Your task to perform on an android device: Open Google Chrome and click the shortcut for Amazon.com Image 0: 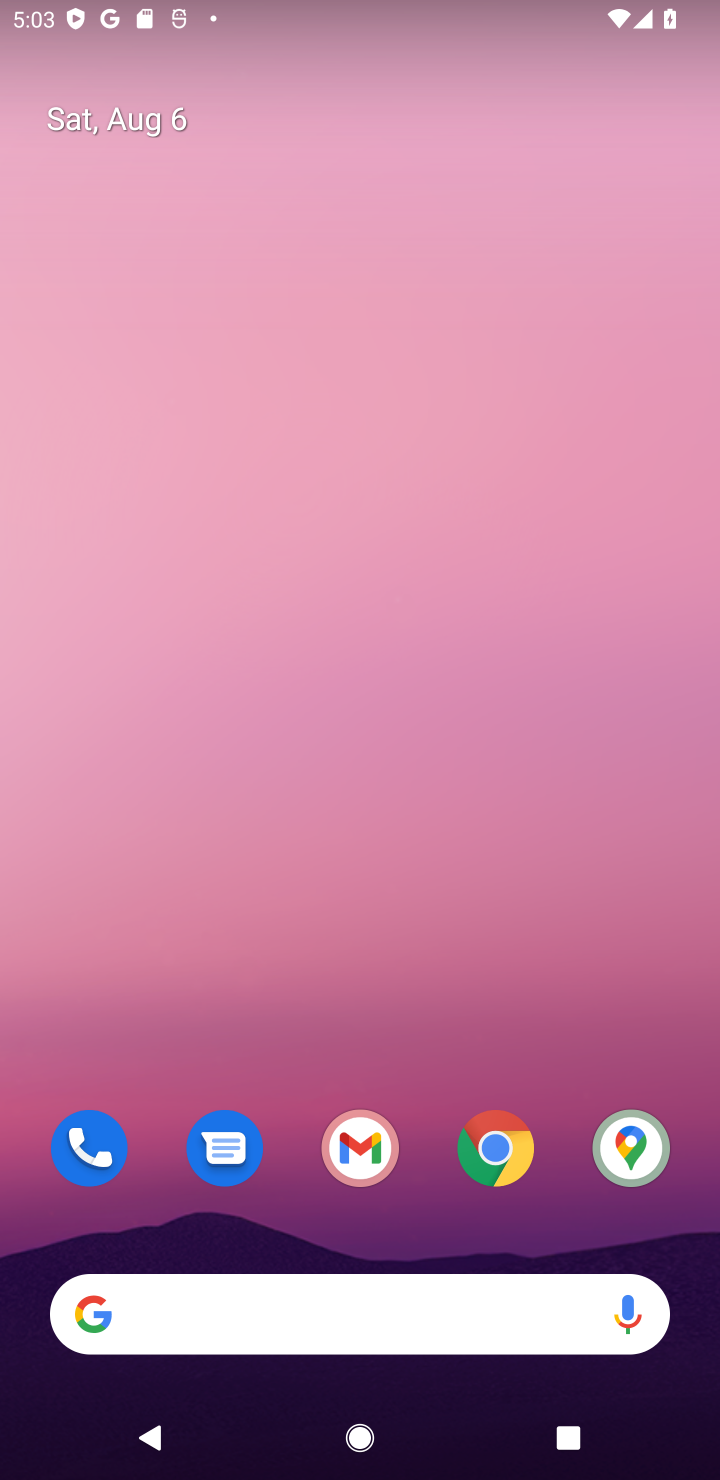
Step 0: drag from (349, 1238) to (602, 1297)
Your task to perform on an android device: Open Google Chrome and click the shortcut for Amazon.com Image 1: 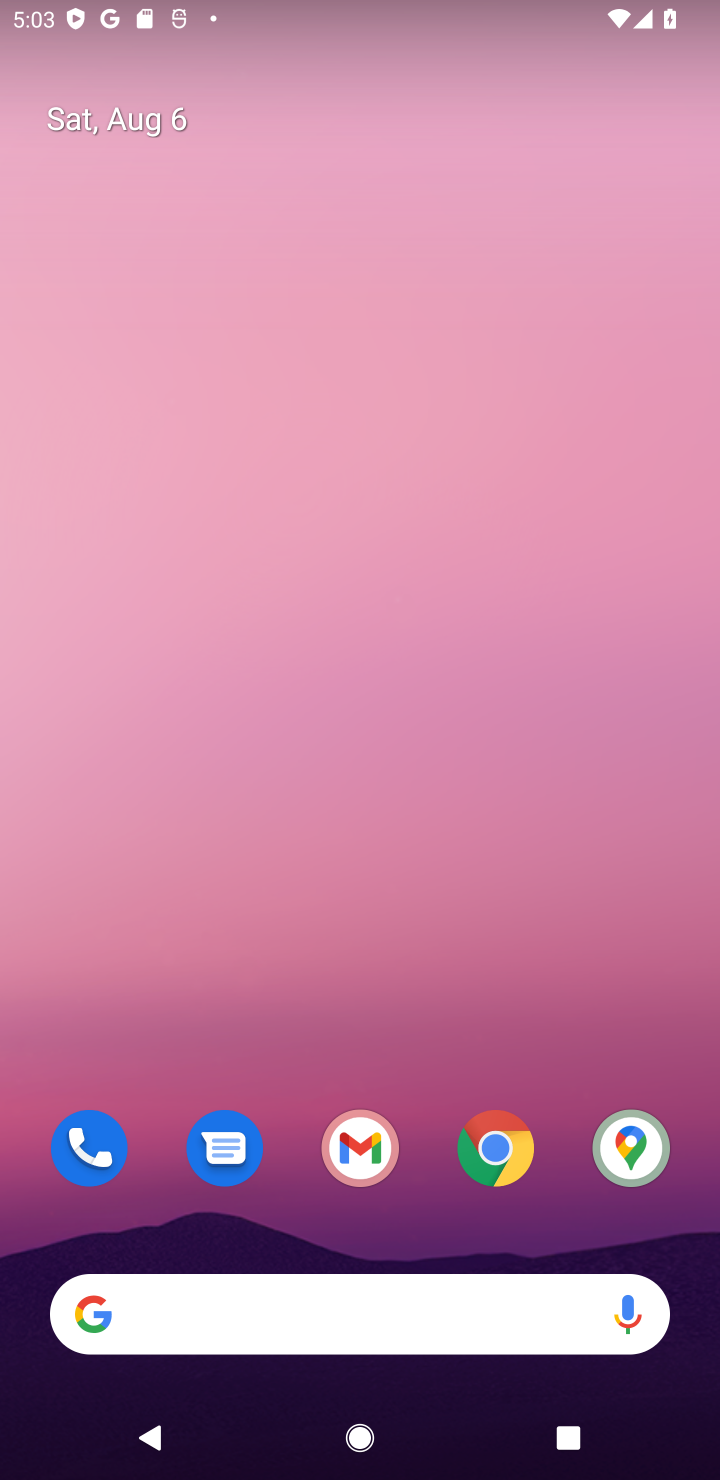
Step 1: click (509, 1181)
Your task to perform on an android device: Open Google Chrome and click the shortcut for Amazon.com Image 2: 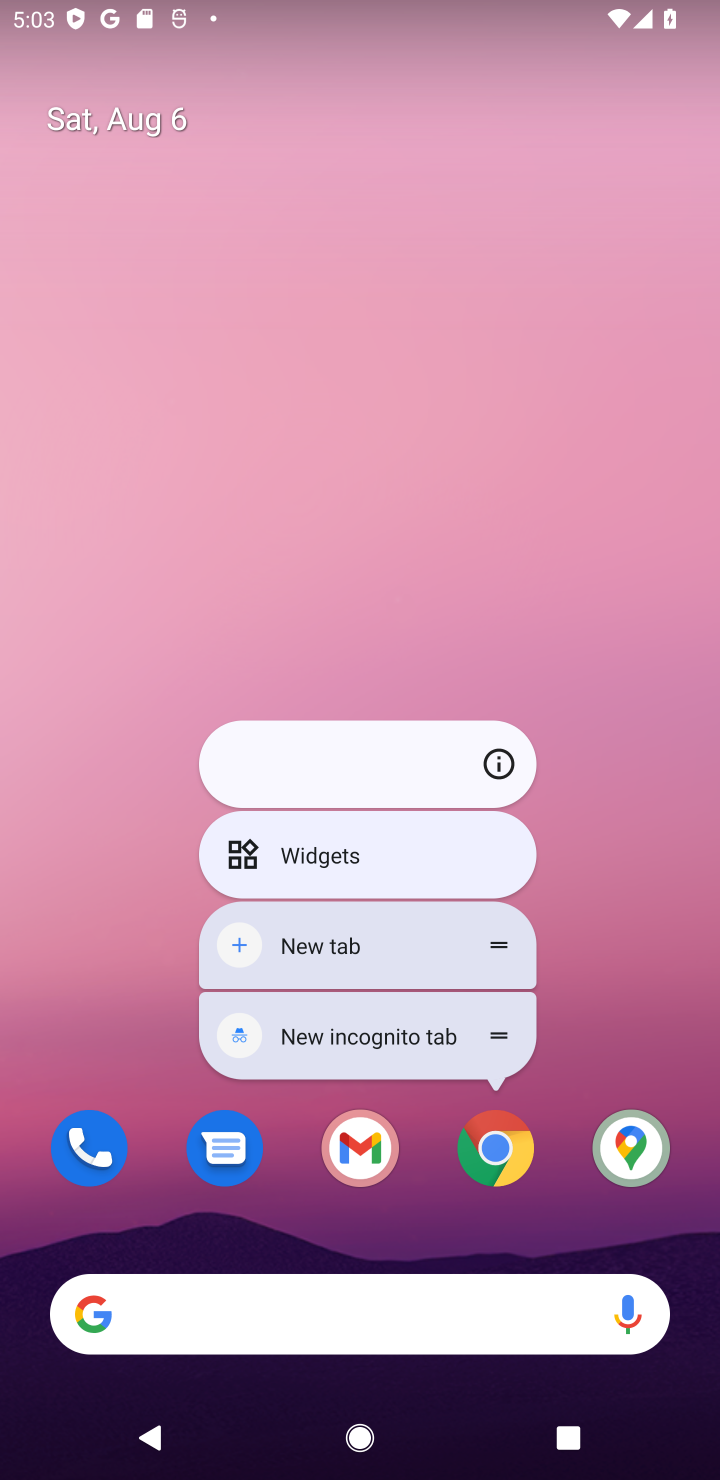
Step 2: click (509, 1159)
Your task to perform on an android device: Open Google Chrome and click the shortcut for Amazon.com Image 3: 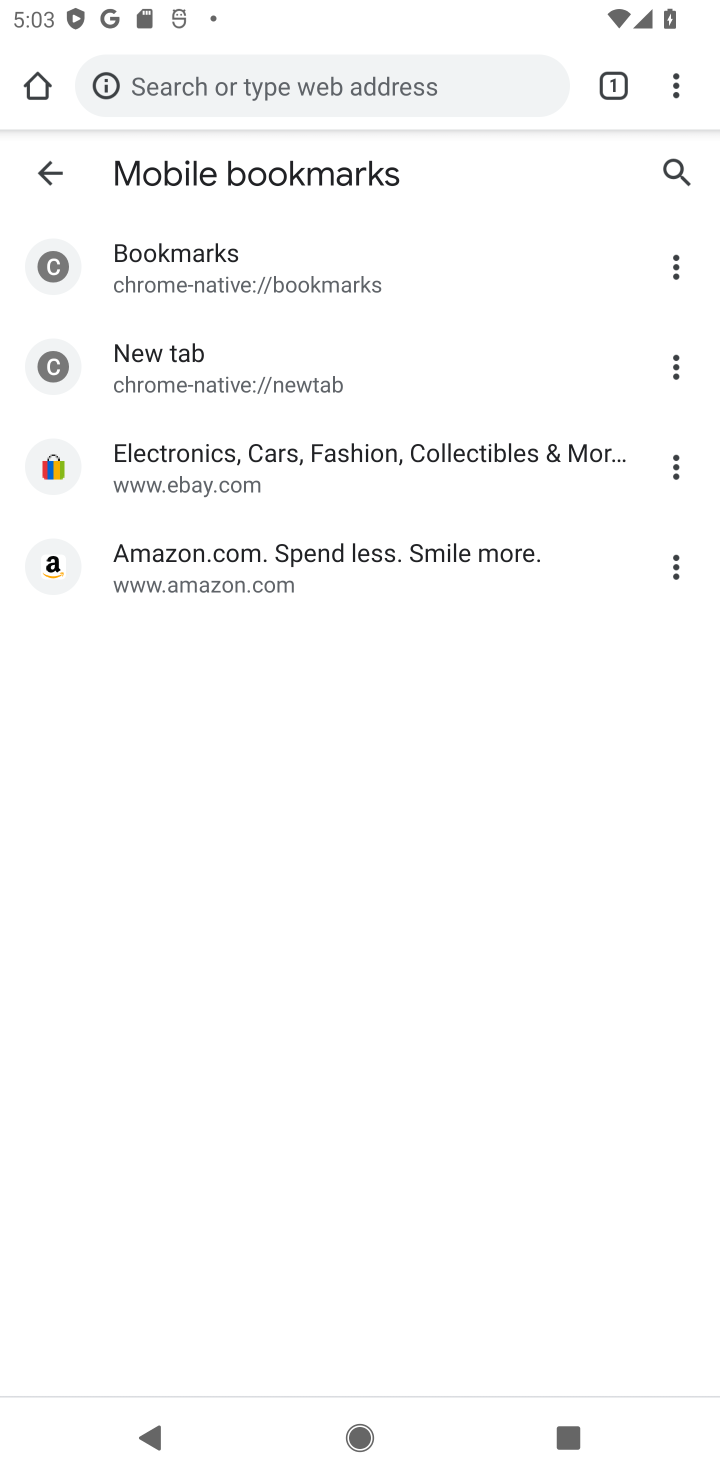
Step 3: click (33, 105)
Your task to perform on an android device: Open Google Chrome and click the shortcut for Amazon.com Image 4: 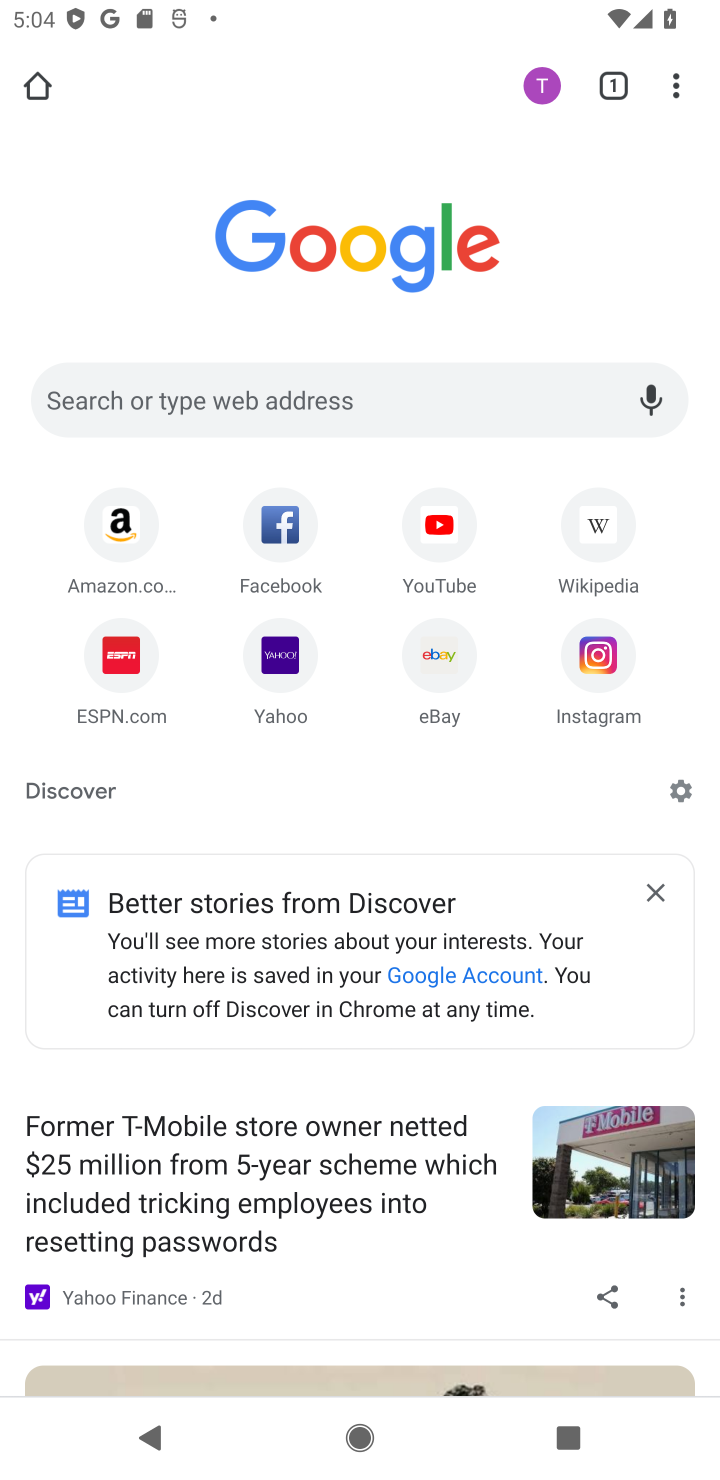
Step 4: click (128, 530)
Your task to perform on an android device: Open Google Chrome and click the shortcut for Amazon.com Image 5: 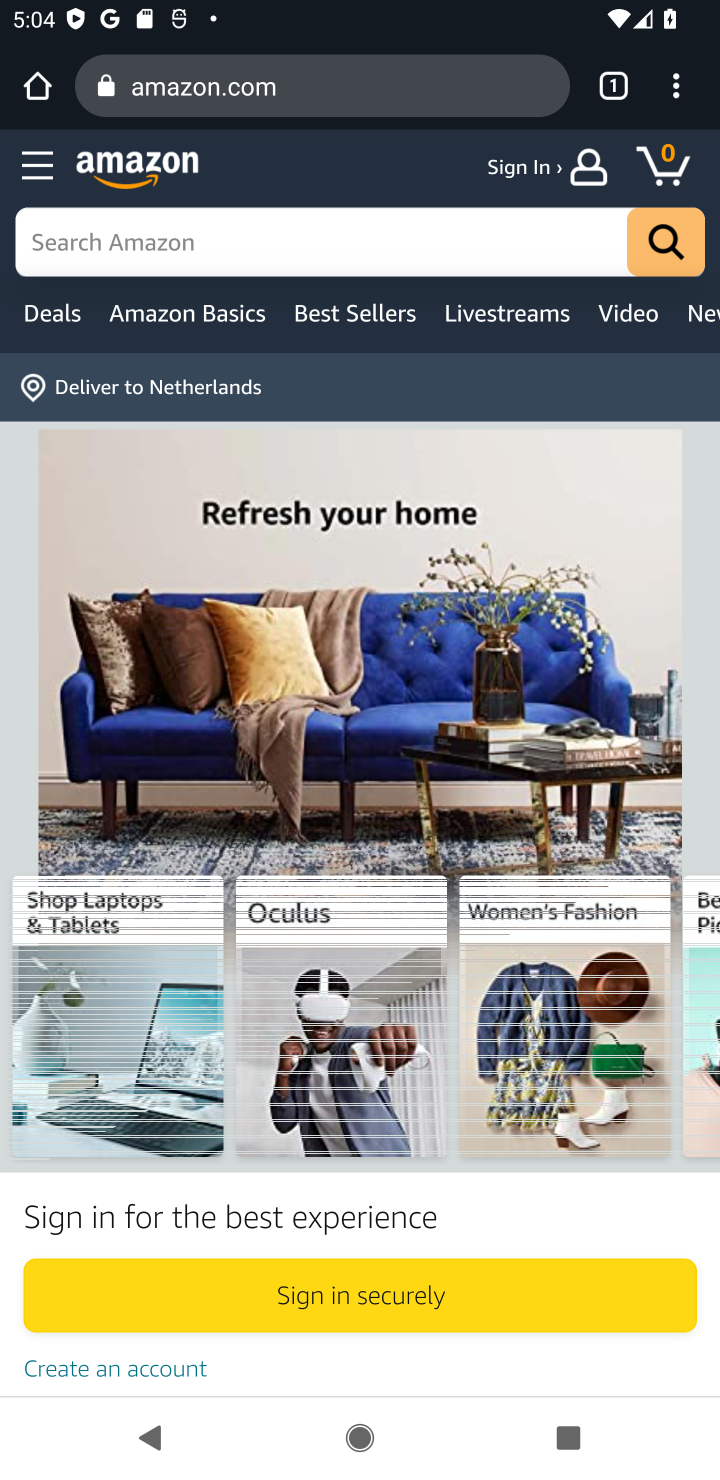
Step 5: task complete